Your task to perform on an android device: Go to wifi settings Image 0: 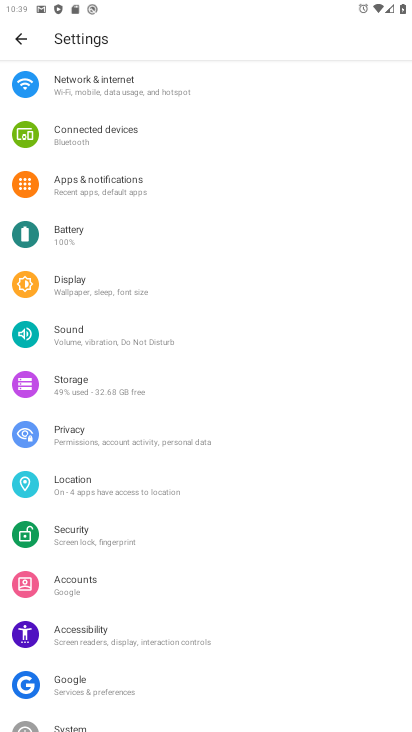
Step 0: click (184, 73)
Your task to perform on an android device: Go to wifi settings Image 1: 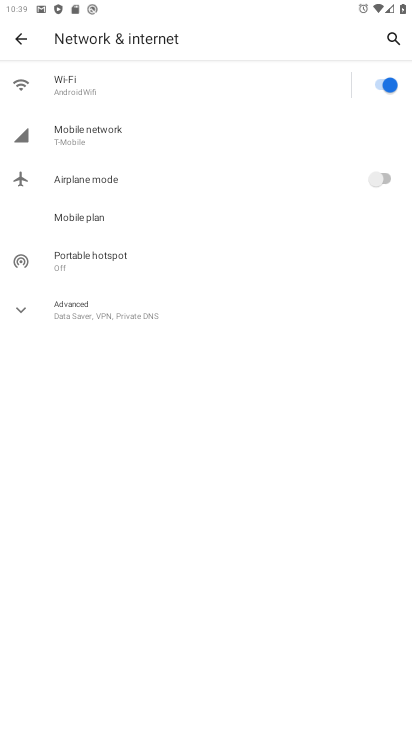
Step 1: click (164, 84)
Your task to perform on an android device: Go to wifi settings Image 2: 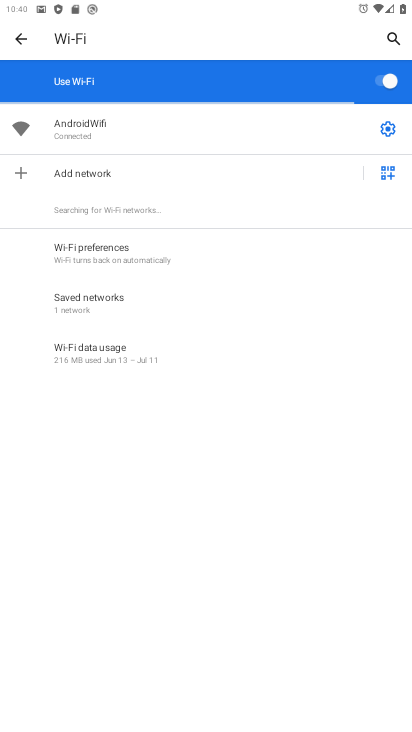
Step 2: task complete